Your task to perform on an android device: change text size in settings app Image 0: 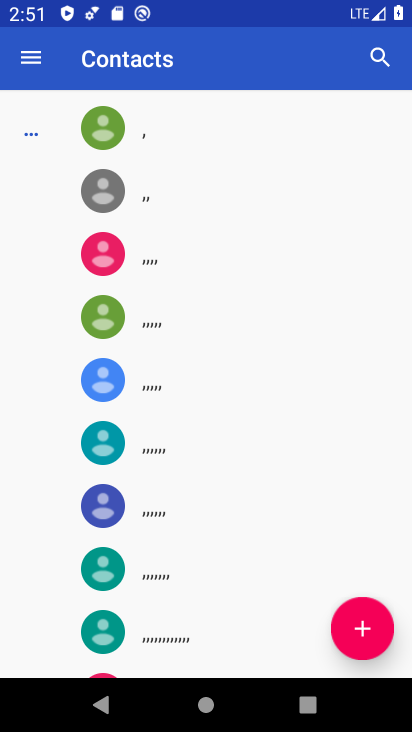
Step 0: press home button
Your task to perform on an android device: change text size in settings app Image 1: 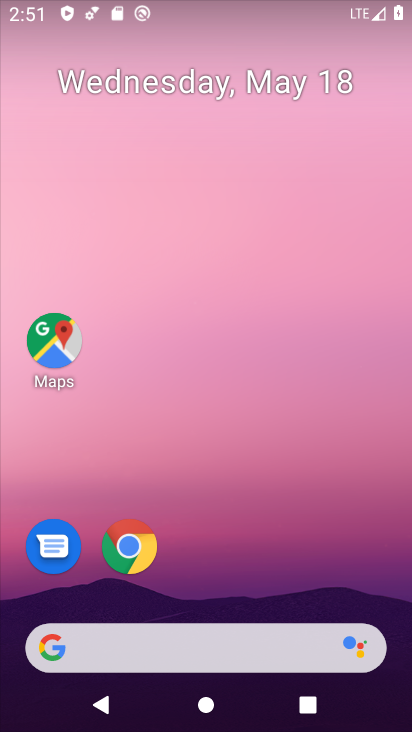
Step 1: drag from (227, 722) to (266, 146)
Your task to perform on an android device: change text size in settings app Image 2: 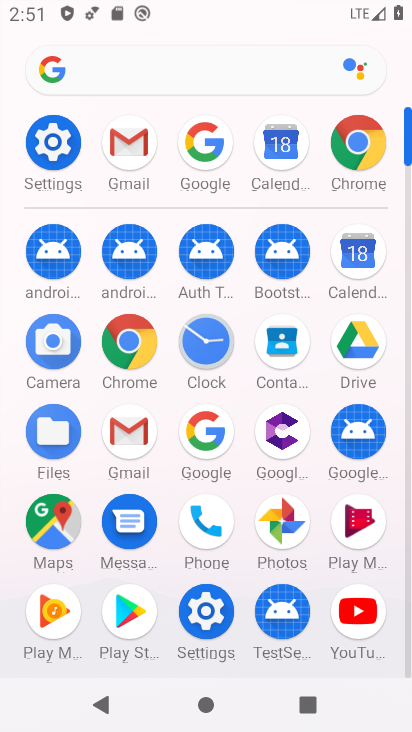
Step 2: click (42, 139)
Your task to perform on an android device: change text size in settings app Image 3: 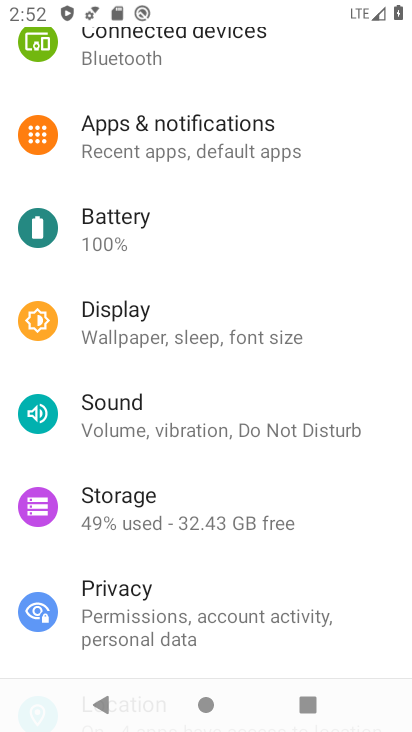
Step 3: drag from (180, 186) to (179, 498)
Your task to perform on an android device: change text size in settings app Image 4: 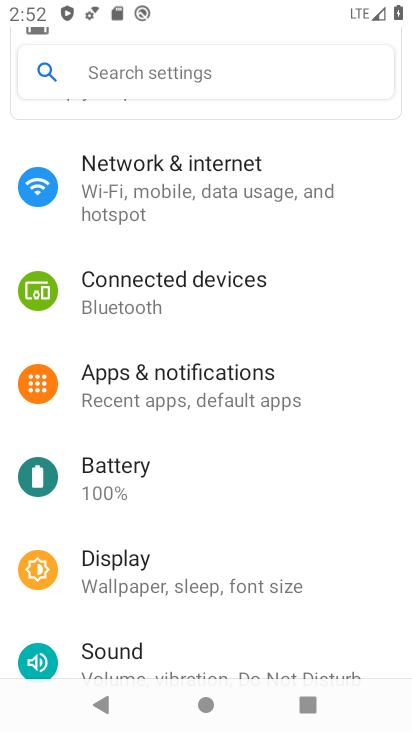
Step 4: click (169, 586)
Your task to perform on an android device: change text size in settings app Image 5: 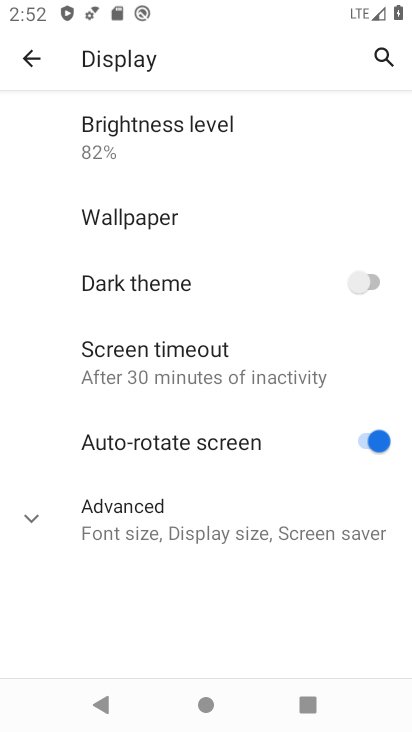
Step 5: click (171, 528)
Your task to perform on an android device: change text size in settings app Image 6: 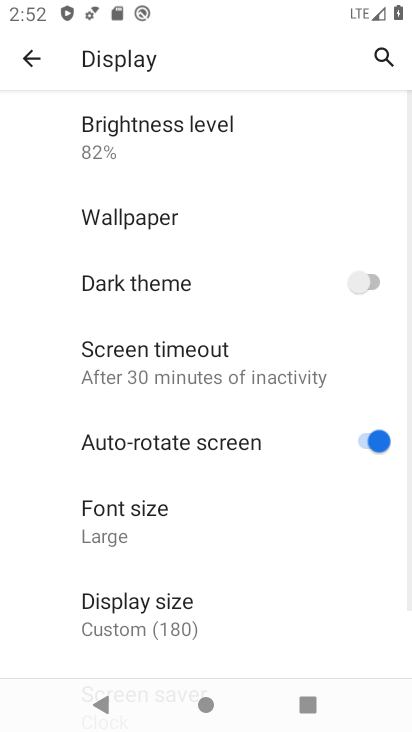
Step 6: click (102, 511)
Your task to perform on an android device: change text size in settings app Image 7: 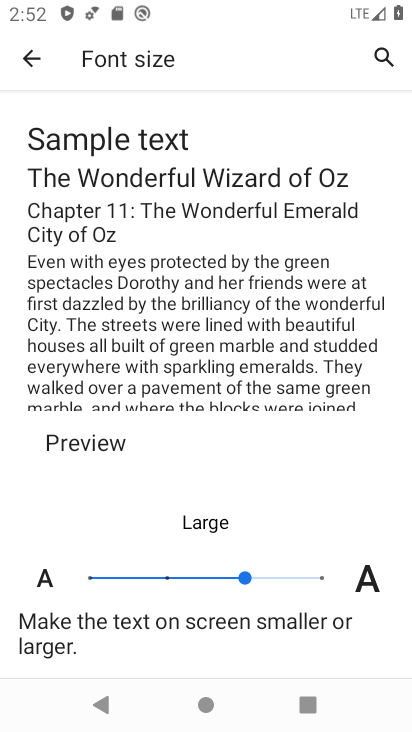
Step 7: click (163, 575)
Your task to perform on an android device: change text size in settings app Image 8: 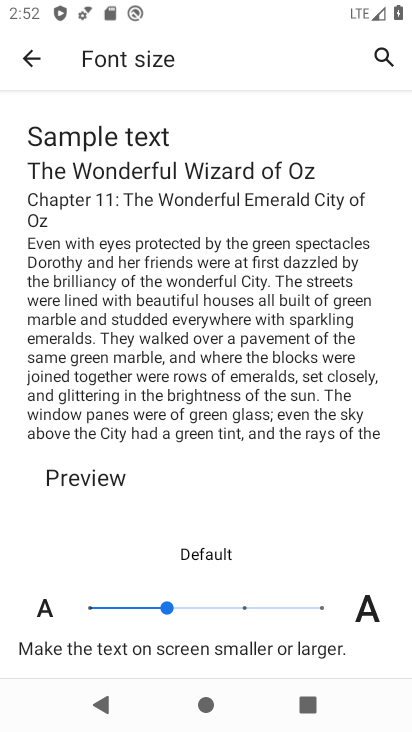
Step 8: task complete